Your task to perform on an android device: Go to notification settings Image 0: 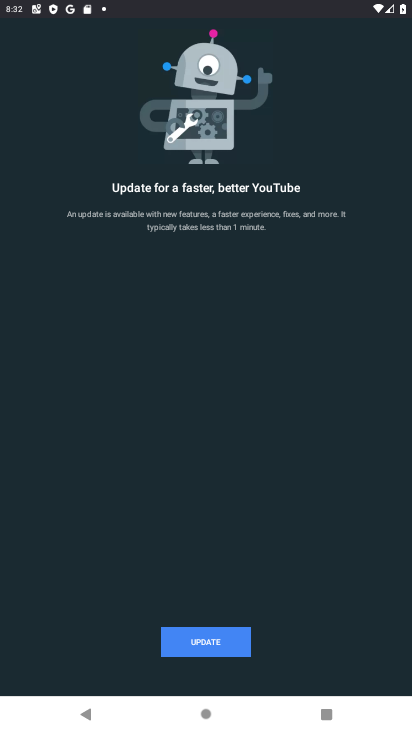
Step 0: press home button
Your task to perform on an android device: Go to notification settings Image 1: 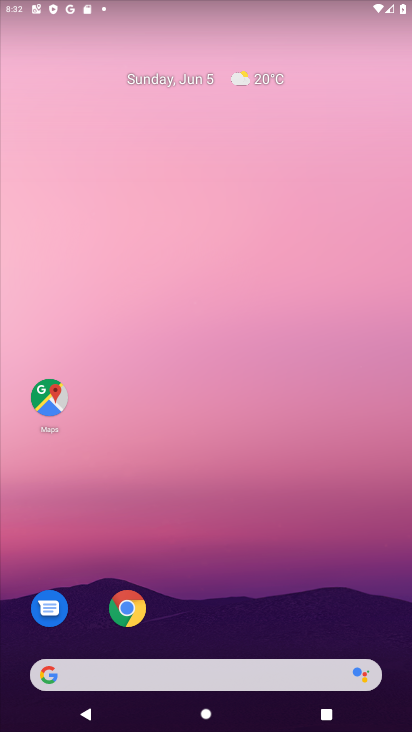
Step 1: drag from (11, 647) to (378, 35)
Your task to perform on an android device: Go to notification settings Image 2: 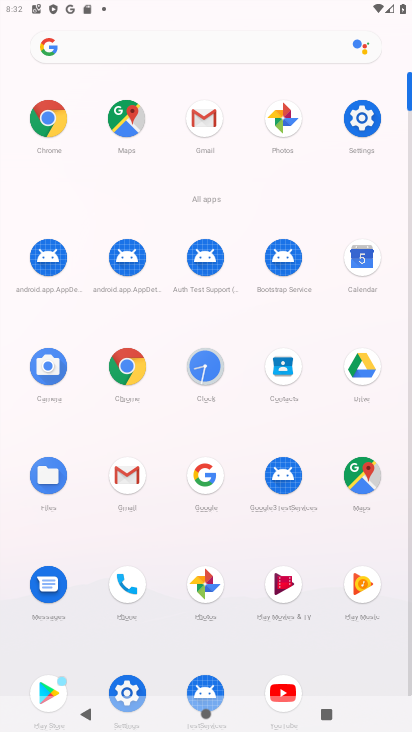
Step 2: click (365, 121)
Your task to perform on an android device: Go to notification settings Image 3: 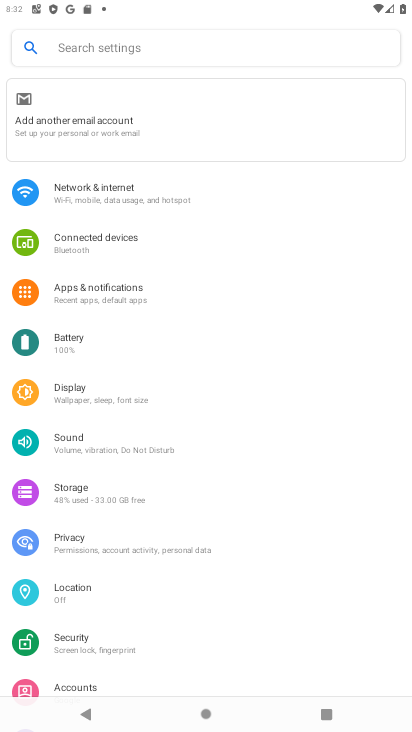
Step 3: click (34, 288)
Your task to perform on an android device: Go to notification settings Image 4: 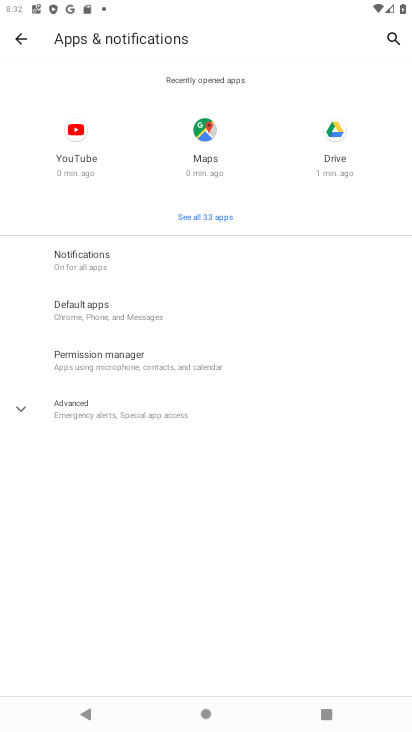
Step 4: click (87, 253)
Your task to perform on an android device: Go to notification settings Image 5: 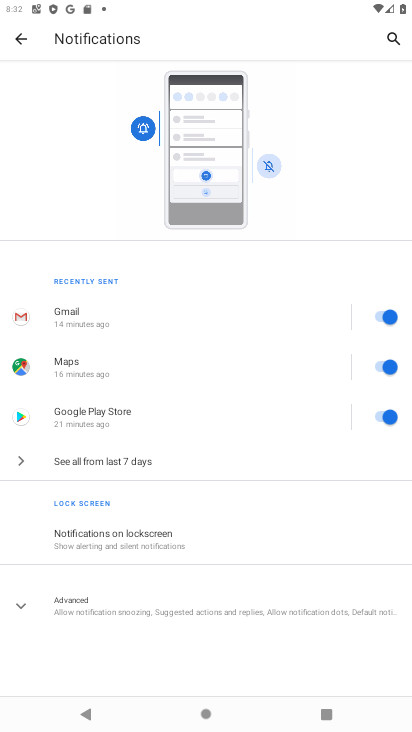
Step 5: task complete